Your task to perform on an android device: find which apps use the phone's location Image 0: 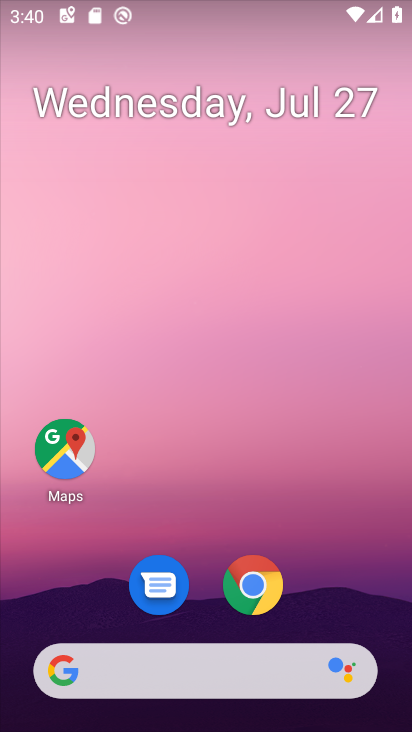
Step 0: drag from (340, 559) to (323, 67)
Your task to perform on an android device: find which apps use the phone's location Image 1: 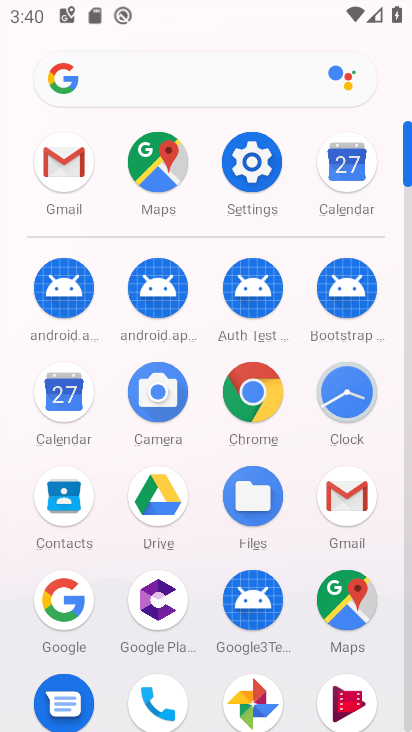
Step 1: click (256, 171)
Your task to perform on an android device: find which apps use the phone's location Image 2: 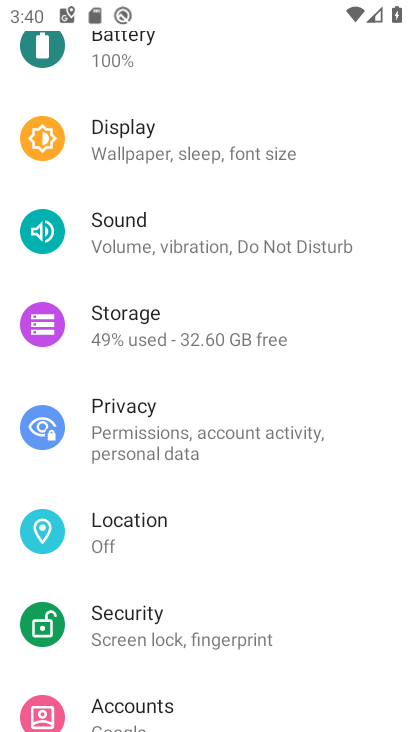
Step 2: click (158, 526)
Your task to perform on an android device: find which apps use the phone's location Image 3: 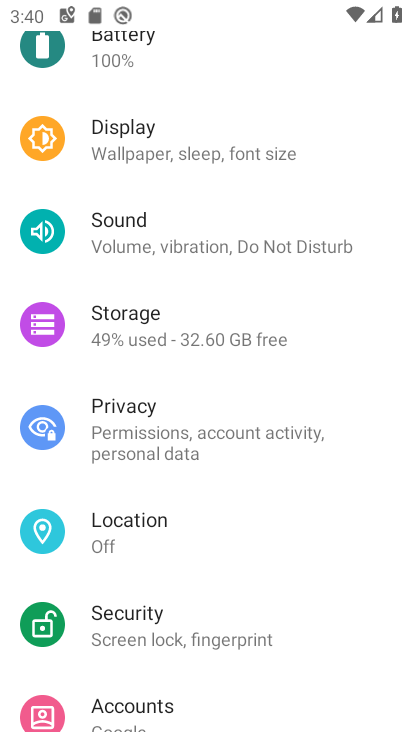
Step 3: click (158, 526)
Your task to perform on an android device: find which apps use the phone's location Image 4: 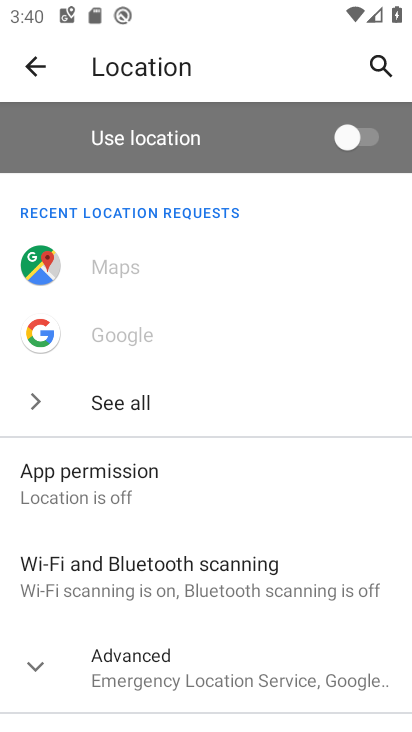
Step 4: drag from (205, 474) to (222, 346)
Your task to perform on an android device: find which apps use the phone's location Image 5: 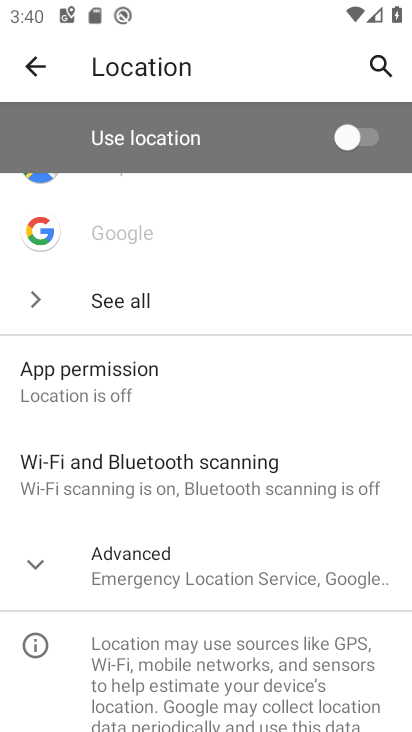
Step 5: click (111, 379)
Your task to perform on an android device: find which apps use the phone's location Image 6: 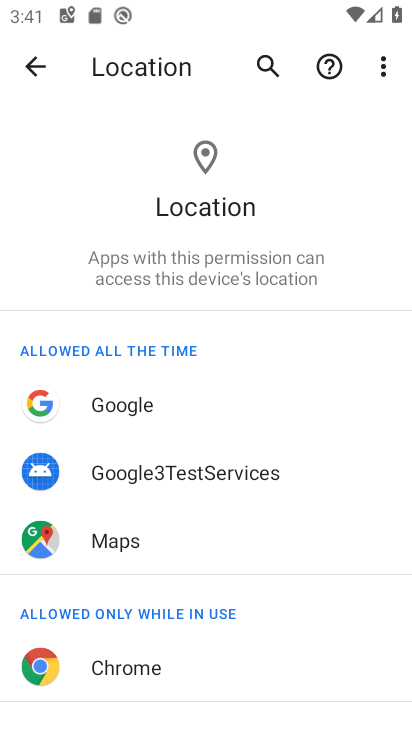
Step 6: click (39, 61)
Your task to perform on an android device: find which apps use the phone's location Image 7: 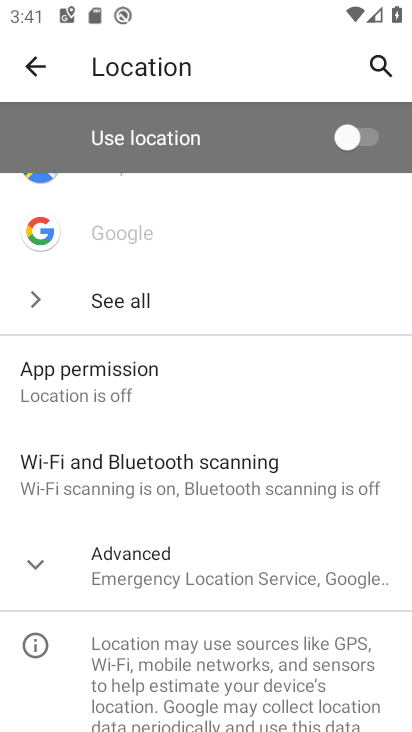
Step 7: click (148, 366)
Your task to perform on an android device: find which apps use the phone's location Image 8: 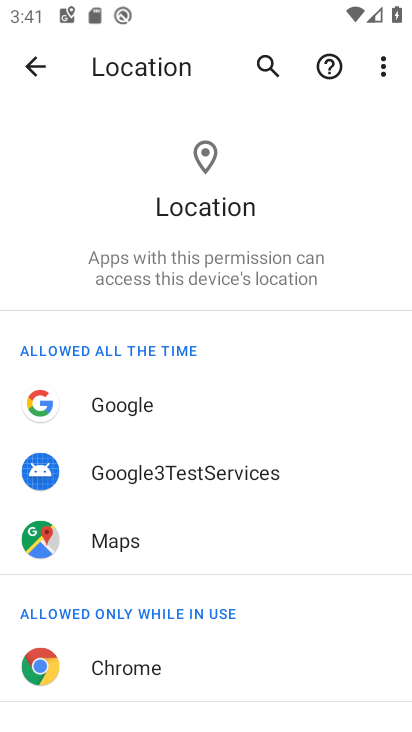
Step 8: task complete